Your task to perform on an android device: open device folders in google photos Image 0: 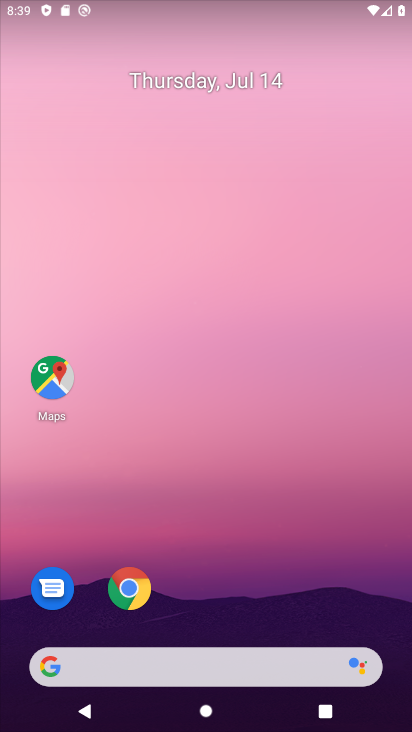
Step 0: drag from (214, 593) to (209, 130)
Your task to perform on an android device: open device folders in google photos Image 1: 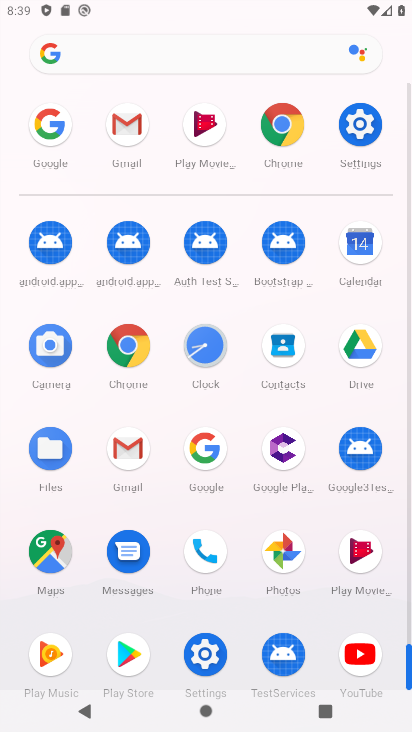
Step 1: click (284, 550)
Your task to perform on an android device: open device folders in google photos Image 2: 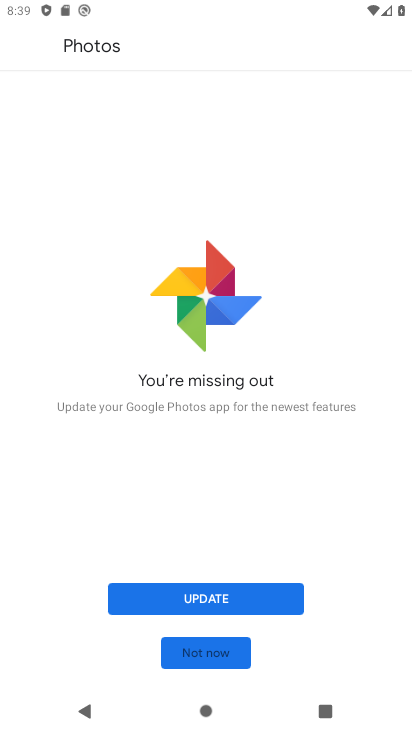
Step 2: click (217, 597)
Your task to perform on an android device: open device folders in google photos Image 3: 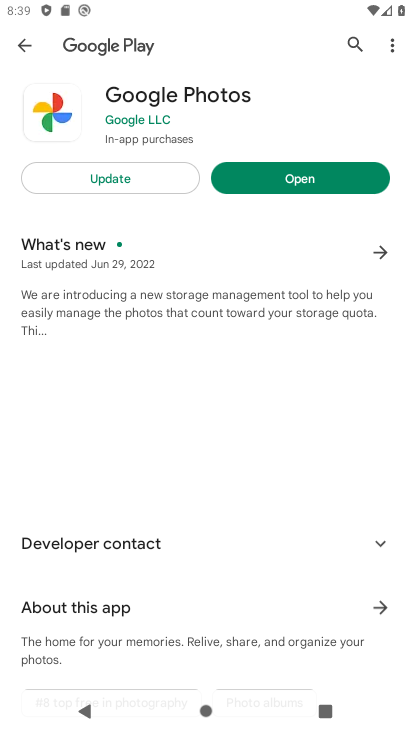
Step 3: click (139, 177)
Your task to perform on an android device: open device folders in google photos Image 4: 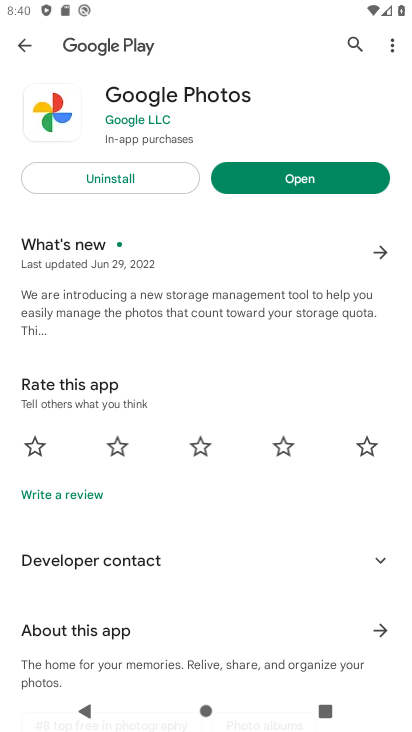
Step 4: click (296, 167)
Your task to perform on an android device: open device folders in google photos Image 5: 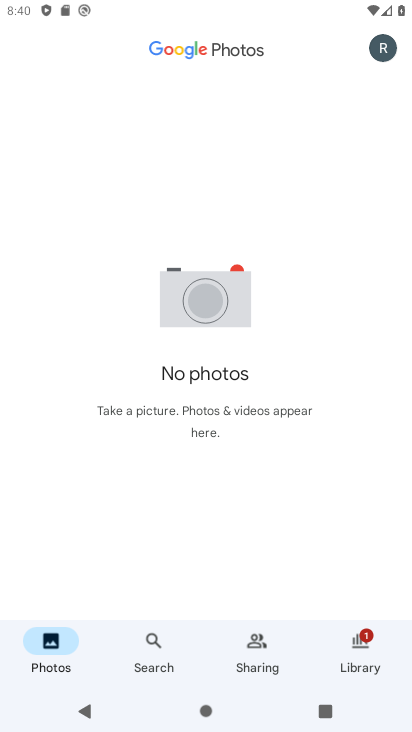
Step 5: task complete